Your task to perform on an android device: Open calendar and show me the third week of next month Image 0: 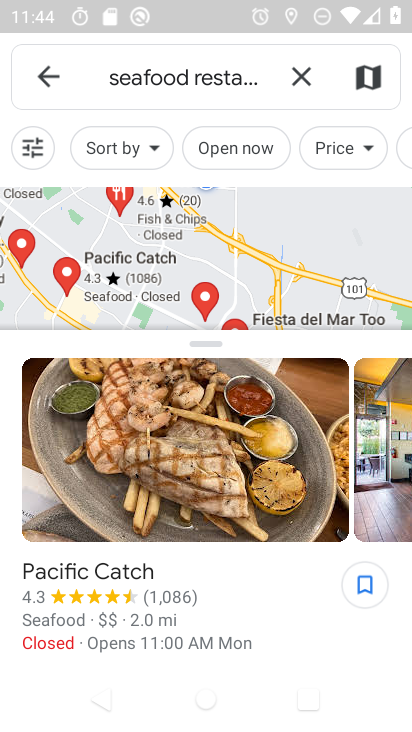
Step 0: press home button
Your task to perform on an android device: Open calendar and show me the third week of next month Image 1: 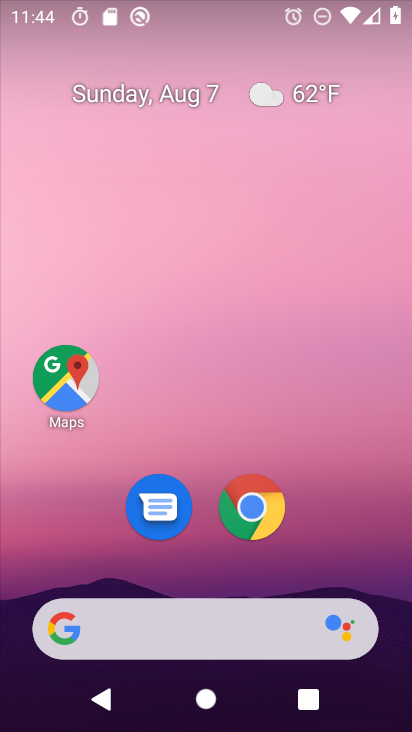
Step 1: drag from (379, 568) to (376, 73)
Your task to perform on an android device: Open calendar and show me the third week of next month Image 2: 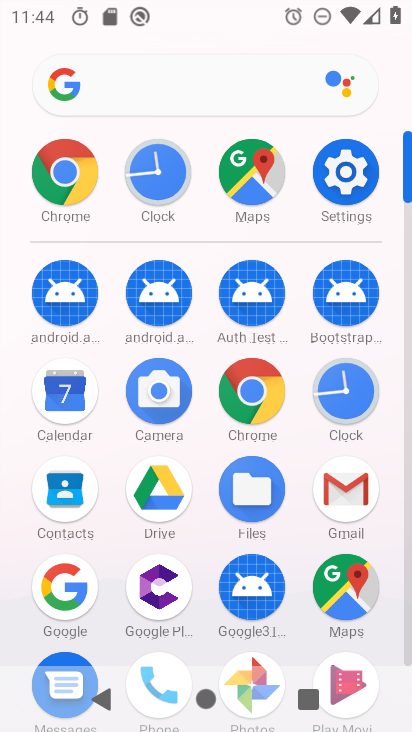
Step 2: click (65, 390)
Your task to perform on an android device: Open calendar and show me the third week of next month Image 3: 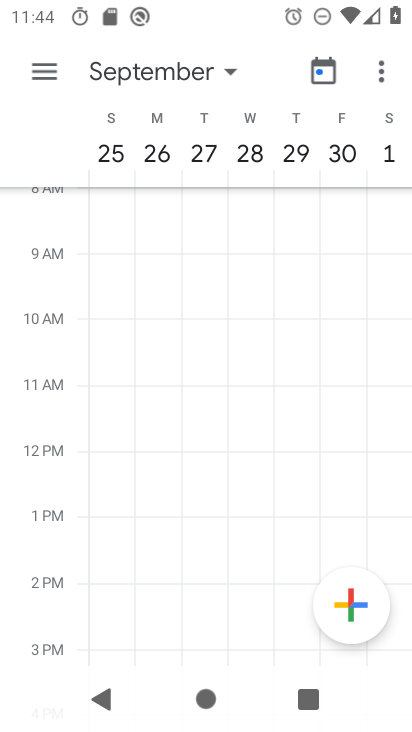
Step 3: click (146, 336)
Your task to perform on an android device: Open calendar and show me the third week of next month Image 4: 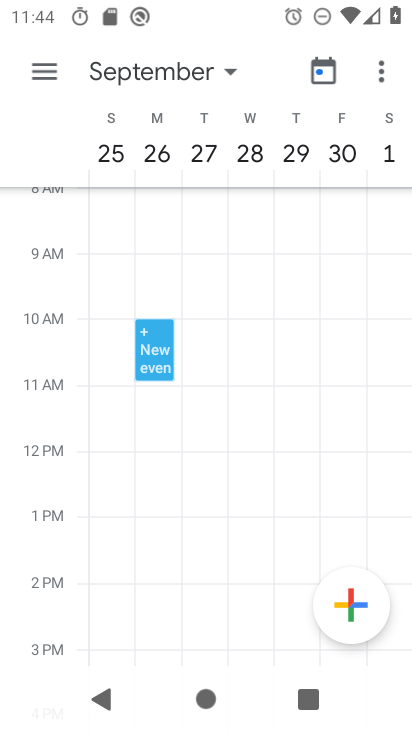
Step 4: click (151, 352)
Your task to perform on an android device: Open calendar and show me the third week of next month Image 5: 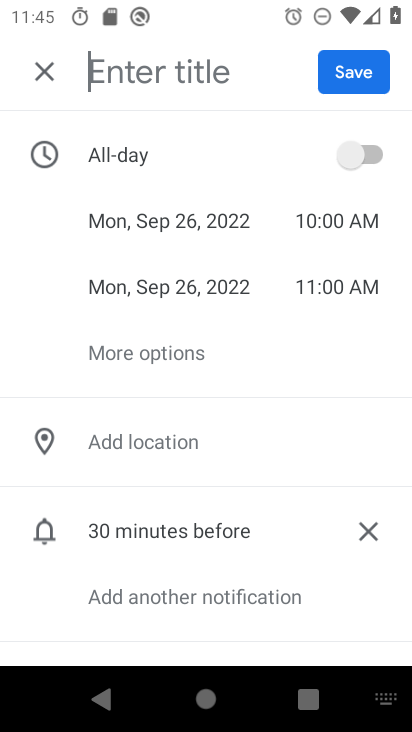
Step 5: click (41, 53)
Your task to perform on an android device: Open calendar and show me the third week of next month Image 6: 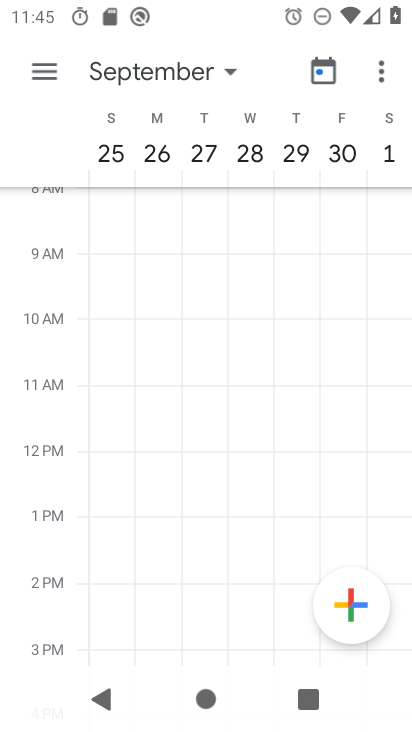
Step 6: click (210, 68)
Your task to perform on an android device: Open calendar and show me the third week of next month Image 7: 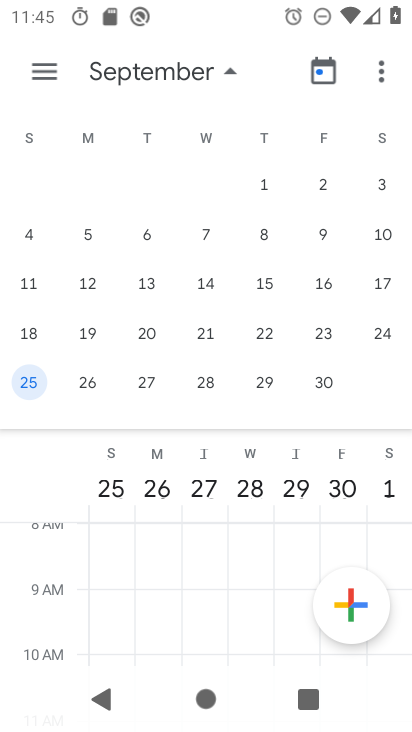
Step 7: click (146, 329)
Your task to perform on an android device: Open calendar and show me the third week of next month Image 8: 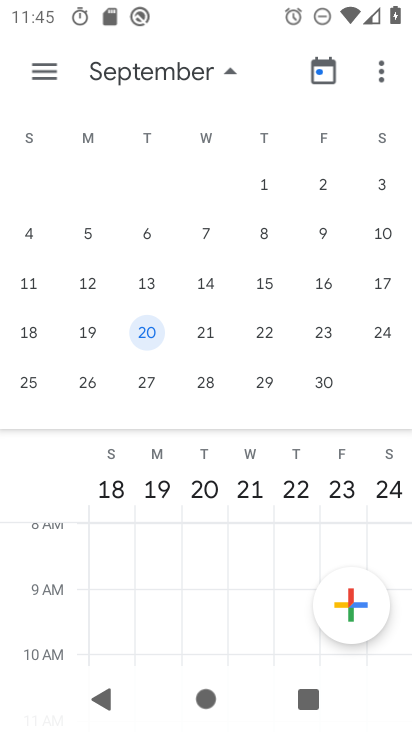
Step 8: task complete